Your task to perform on an android device: Go to internet settings Image 0: 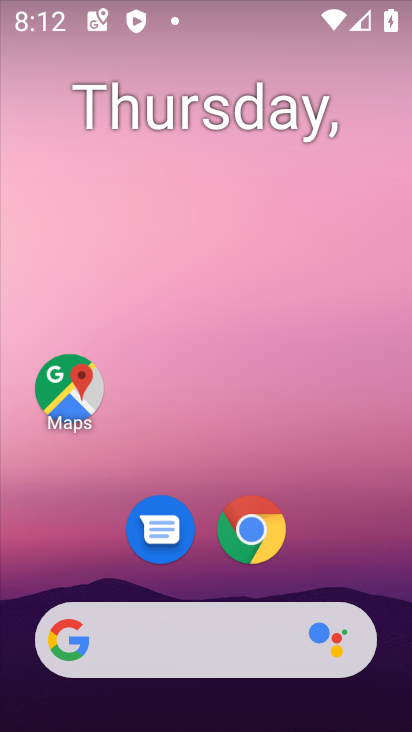
Step 0: drag from (212, 719) to (212, 59)
Your task to perform on an android device: Go to internet settings Image 1: 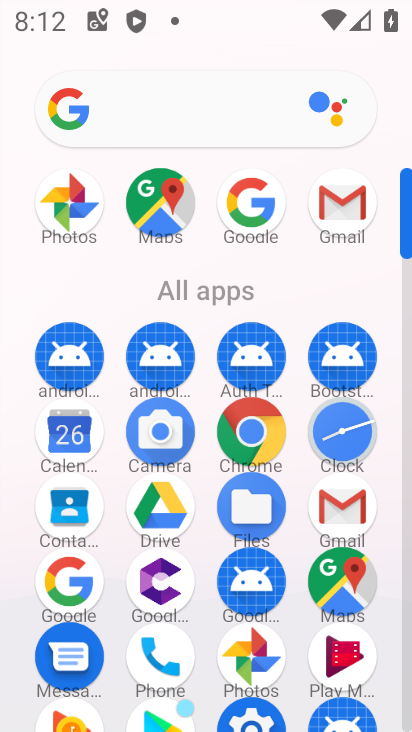
Step 1: drag from (286, 607) to (257, 189)
Your task to perform on an android device: Go to internet settings Image 2: 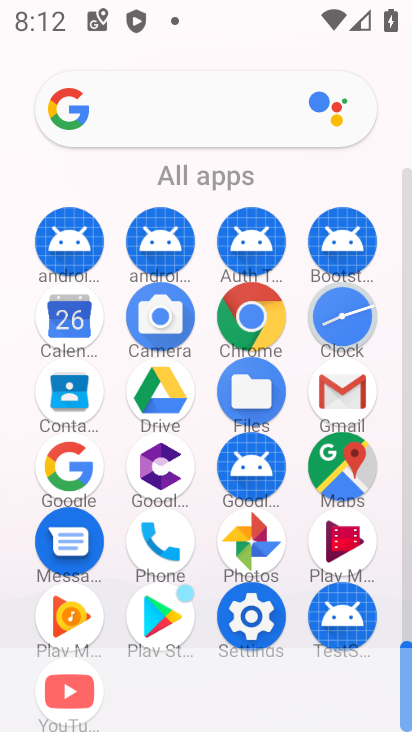
Step 2: click (258, 611)
Your task to perform on an android device: Go to internet settings Image 3: 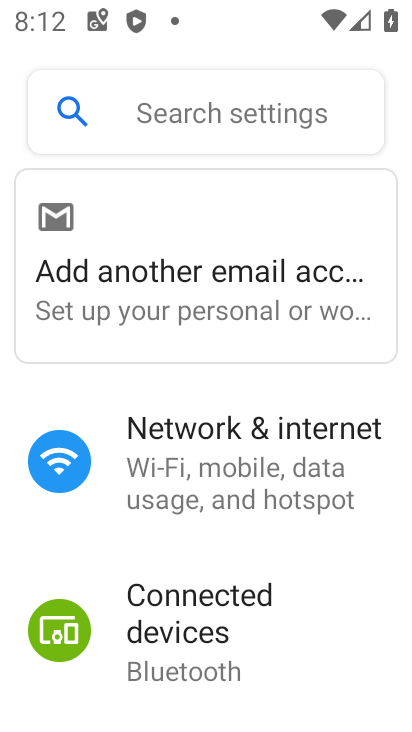
Step 3: click (193, 449)
Your task to perform on an android device: Go to internet settings Image 4: 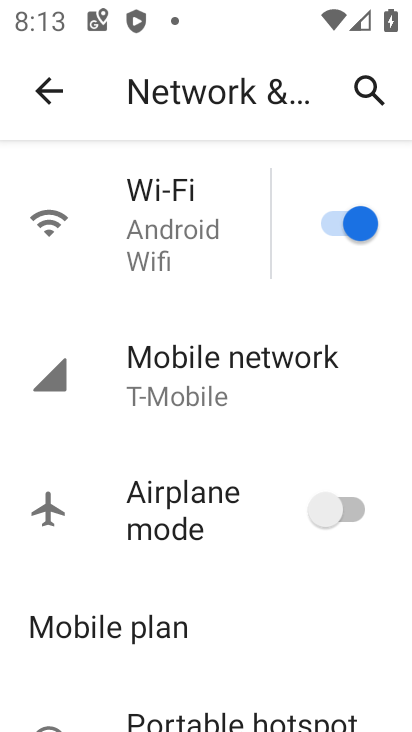
Step 4: task complete